Your task to perform on an android device: Search for vegetarian restaurants on Maps Image 0: 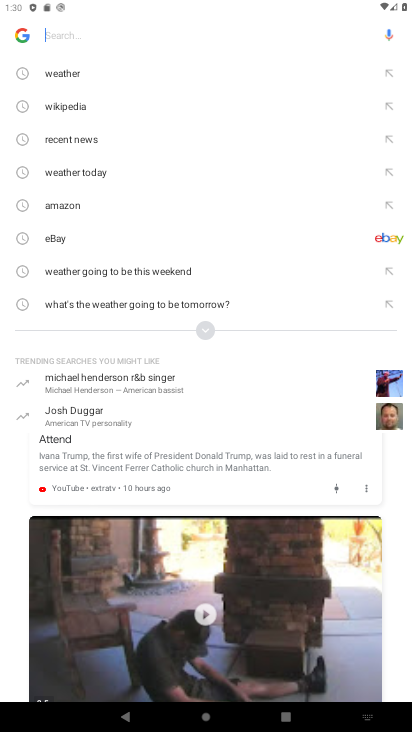
Step 0: press home button
Your task to perform on an android device: Search for vegetarian restaurants on Maps Image 1: 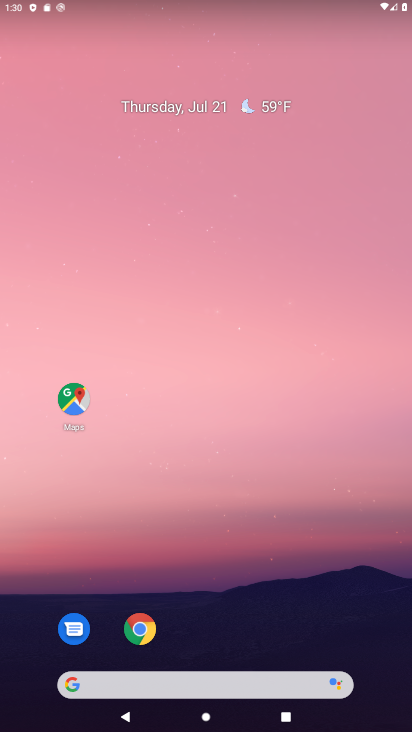
Step 1: click (71, 400)
Your task to perform on an android device: Search for vegetarian restaurants on Maps Image 2: 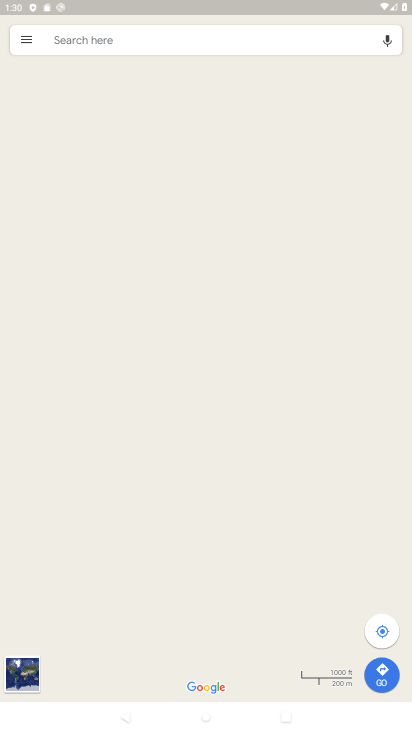
Step 2: click (101, 38)
Your task to perform on an android device: Search for vegetarian restaurants on Maps Image 3: 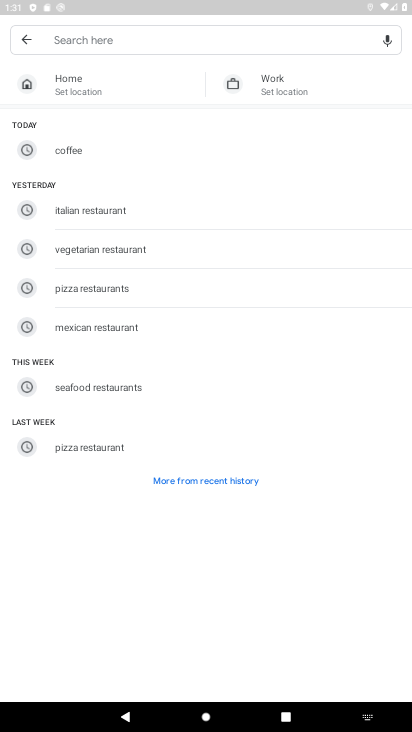
Step 3: type "vegetarian restaurants"
Your task to perform on an android device: Search for vegetarian restaurants on Maps Image 4: 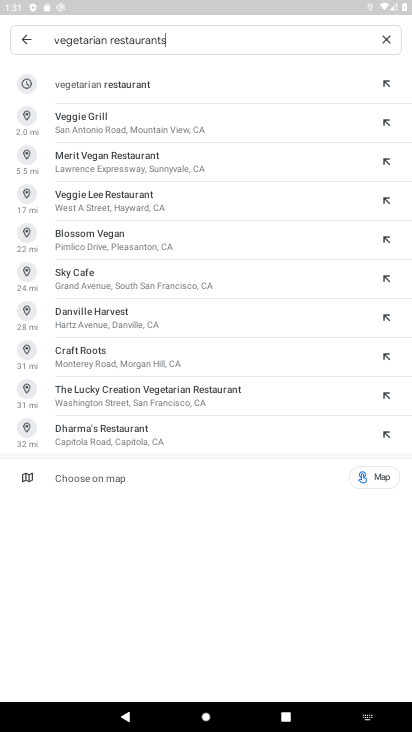
Step 4: click (124, 83)
Your task to perform on an android device: Search for vegetarian restaurants on Maps Image 5: 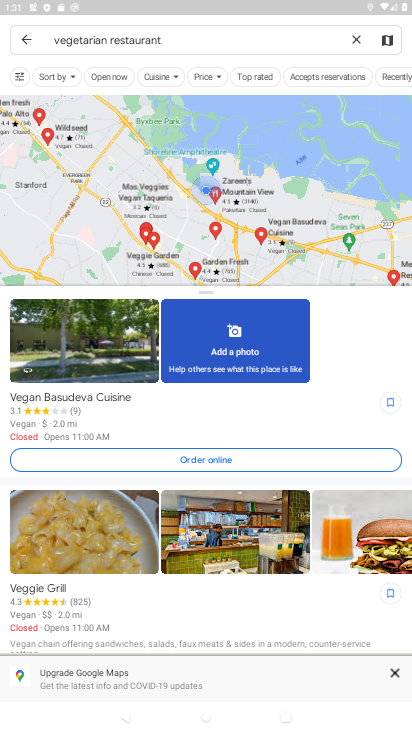
Step 5: task complete